Your task to perform on an android device: star an email in the gmail app Image 0: 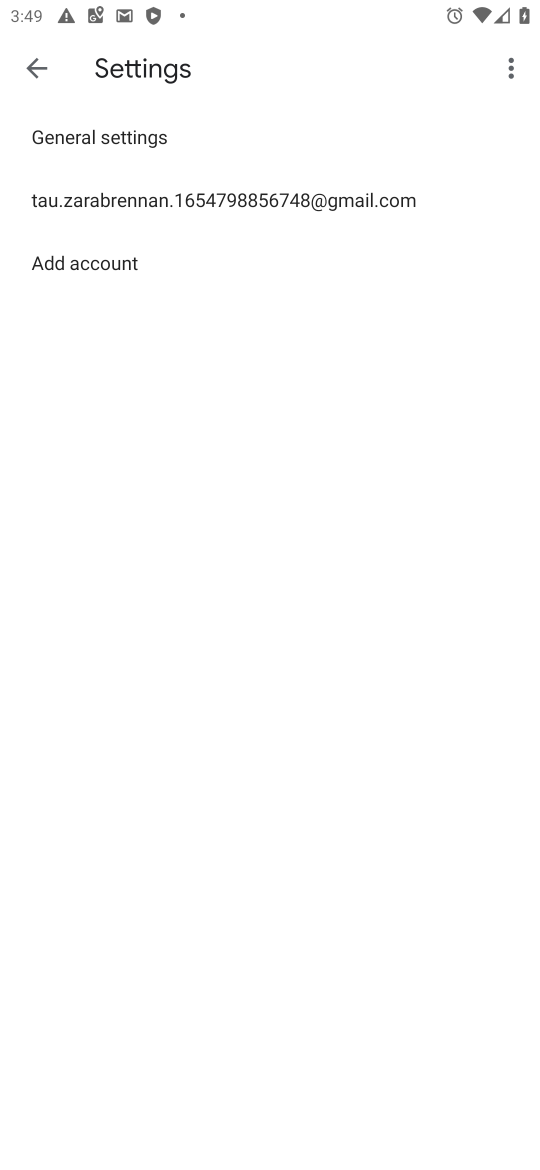
Step 0: press back button
Your task to perform on an android device: star an email in the gmail app Image 1: 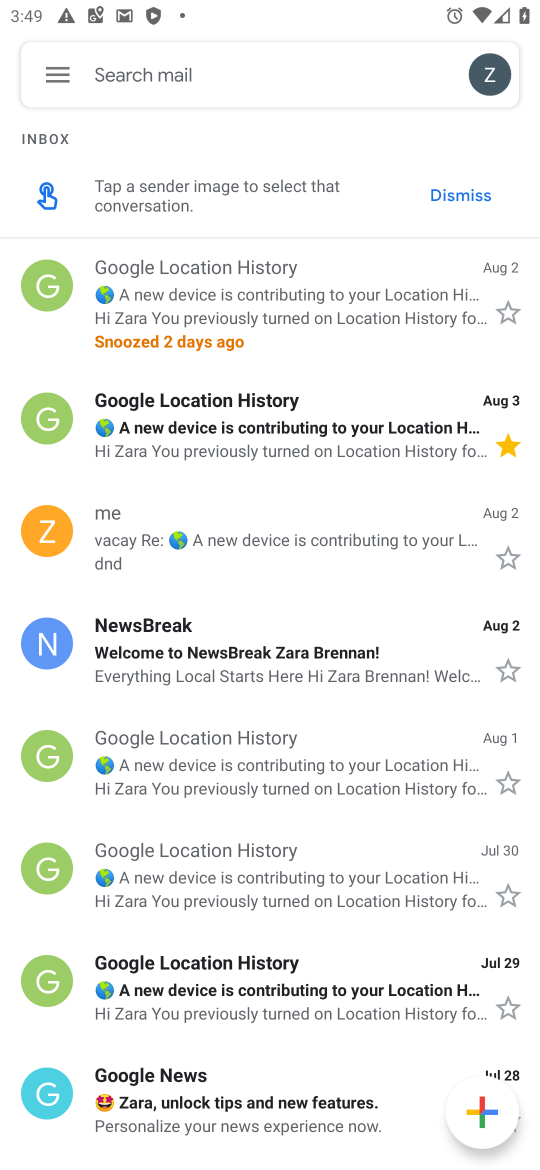
Step 1: click (510, 568)
Your task to perform on an android device: star an email in the gmail app Image 2: 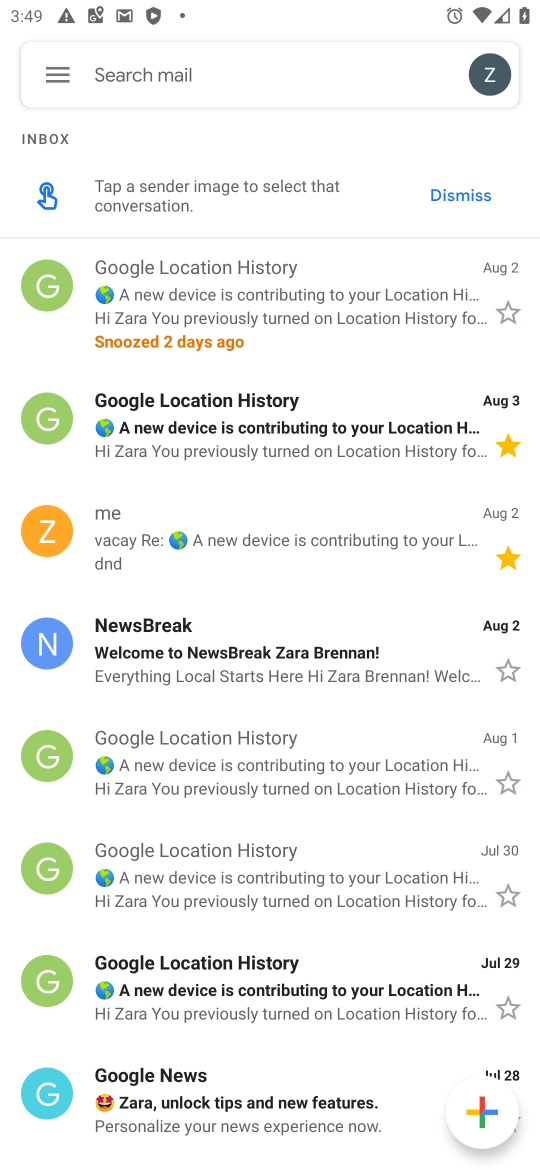
Step 2: task complete